Your task to perform on an android device: uninstall "Microsoft Excel" Image 0: 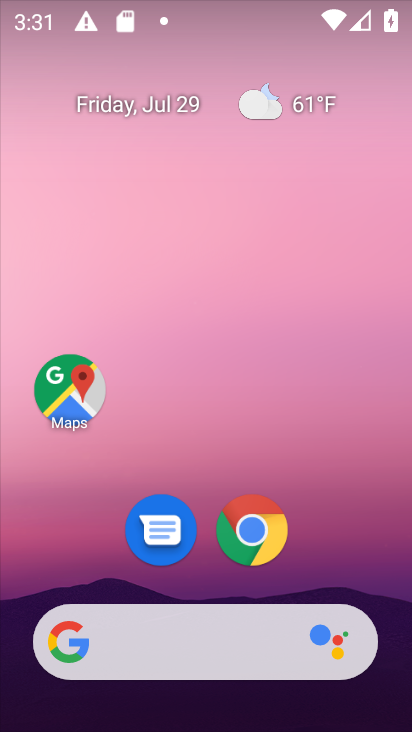
Step 0: drag from (323, 584) to (348, 79)
Your task to perform on an android device: uninstall "Microsoft Excel" Image 1: 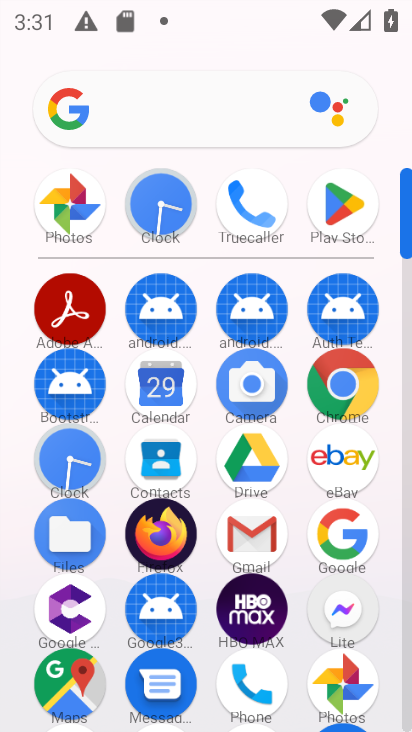
Step 1: click (332, 206)
Your task to perform on an android device: uninstall "Microsoft Excel" Image 2: 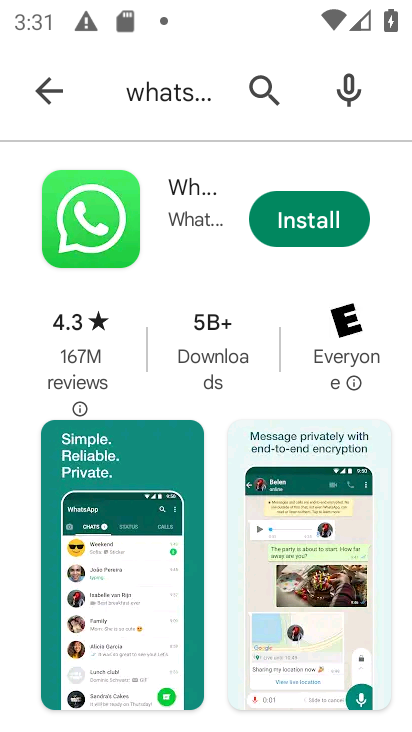
Step 2: click (271, 87)
Your task to perform on an android device: uninstall "Microsoft Excel" Image 3: 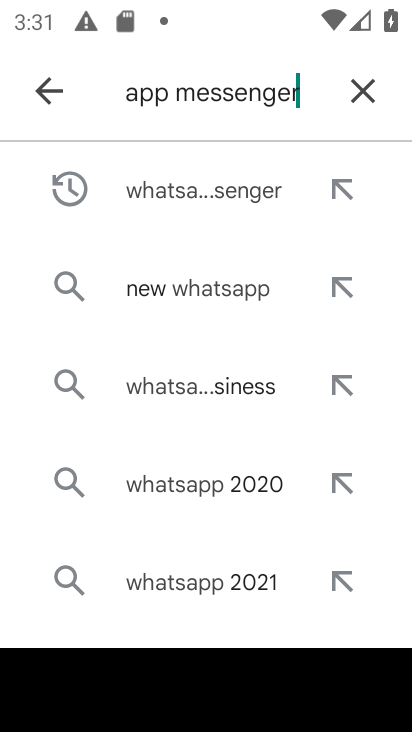
Step 3: click (344, 101)
Your task to perform on an android device: uninstall "Microsoft Excel" Image 4: 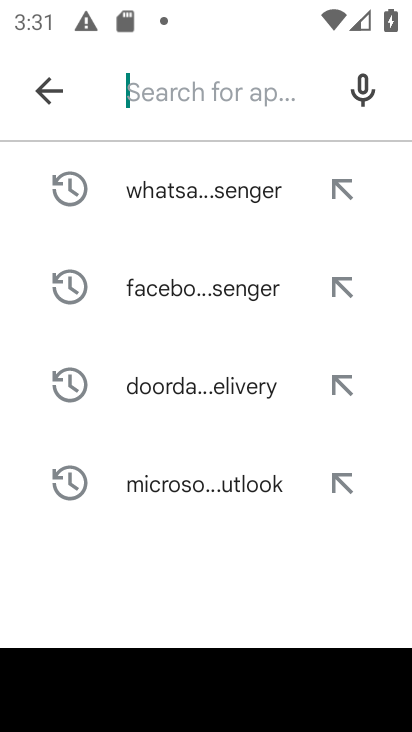
Step 4: type "Microsoft Excel"
Your task to perform on an android device: uninstall "Microsoft Excel" Image 5: 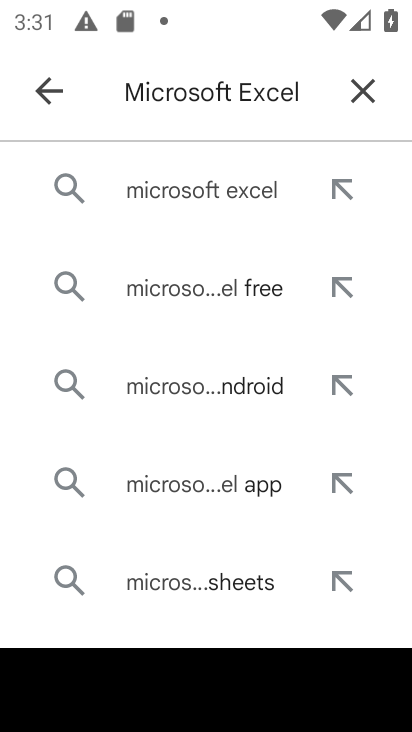
Step 5: click (203, 197)
Your task to perform on an android device: uninstall "Microsoft Excel" Image 6: 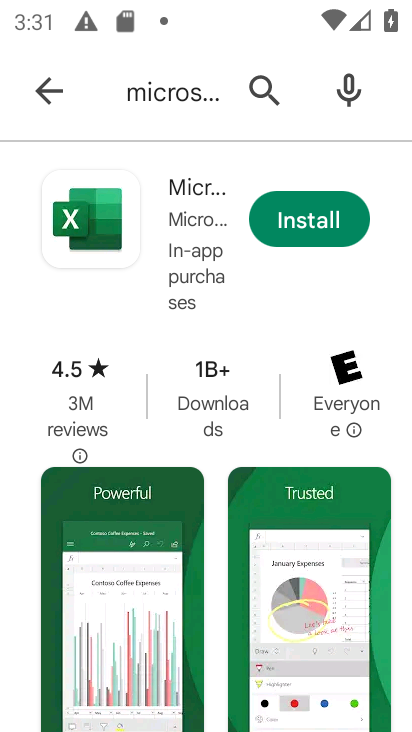
Step 6: task complete